Your task to perform on an android device: Open wifi settings Image 0: 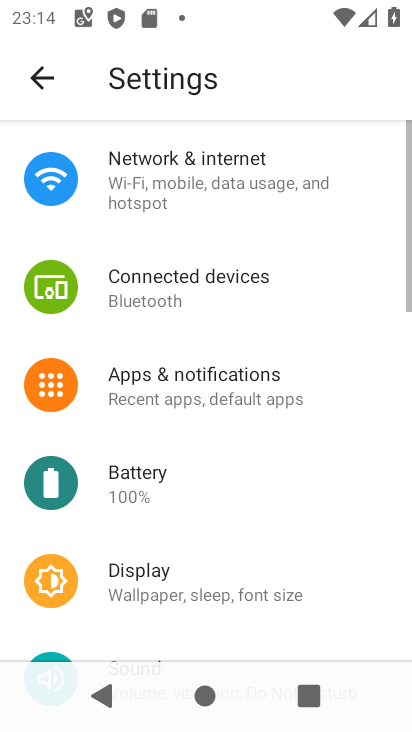
Step 0: drag from (156, 185) to (153, 489)
Your task to perform on an android device: Open wifi settings Image 1: 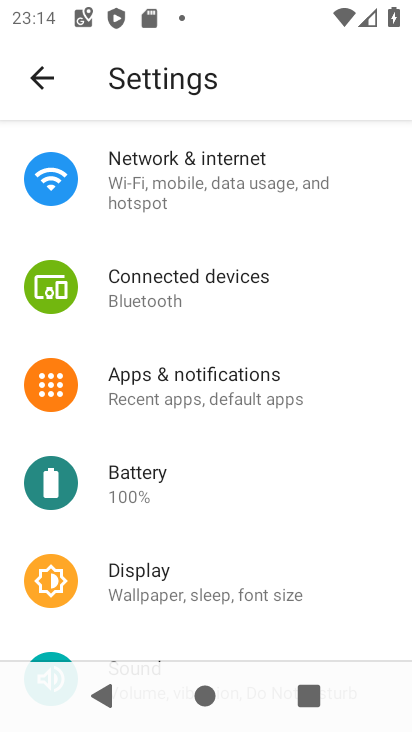
Step 1: click (157, 184)
Your task to perform on an android device: Open wifi settings Image 2: 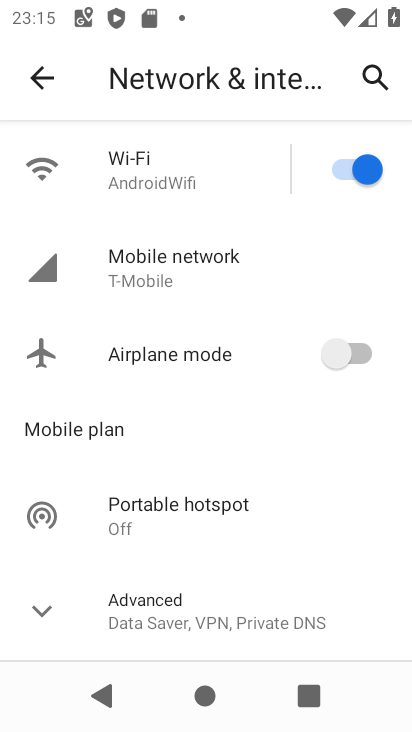
Step 2: click (148, 174)
Your task to perform on an android device: Open wifi settings Image 3: 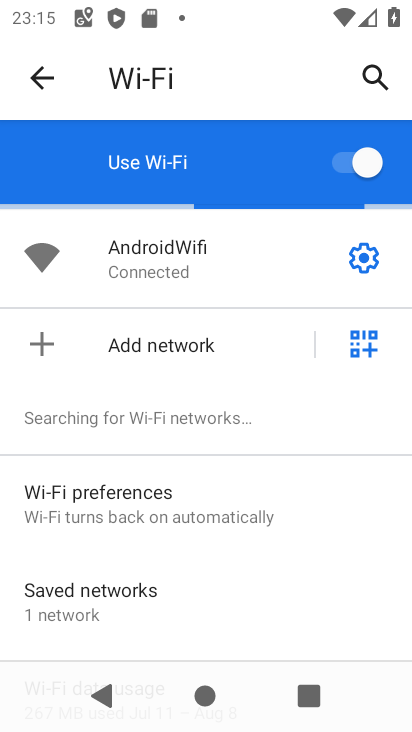
Step 3: task complete